Your task to perform on an android device: Open wifi settings Image 0: 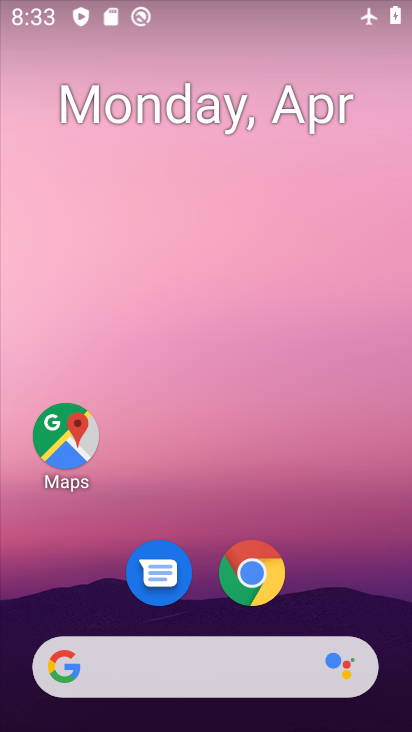
Step 0: drag from (218, 493) to (81, 4)
Your task to perform on an android device: Open wifi settings Image 1: 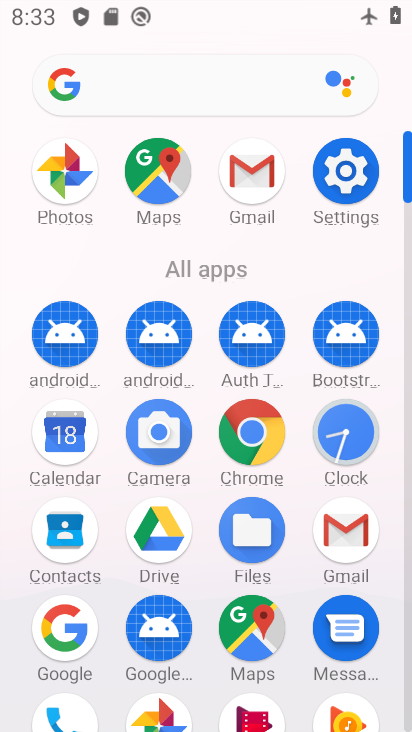
Step 1: click (340, 188)
Your task to perform on an android device: Open wifi settings Image 2: 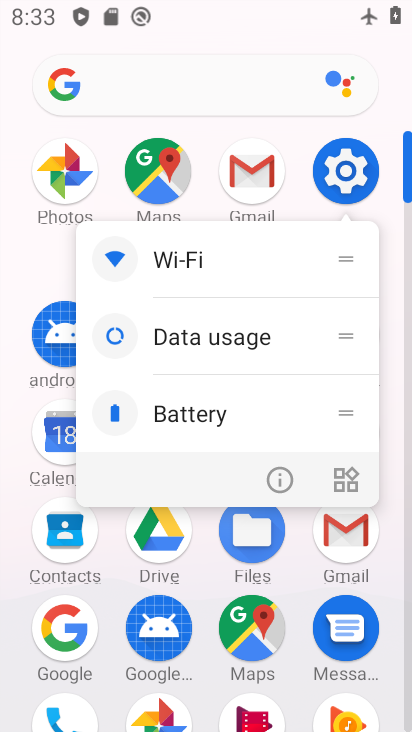
Step 2: click (357, 165)
Your task to perform on an android device: Open wifi settings Image 3: 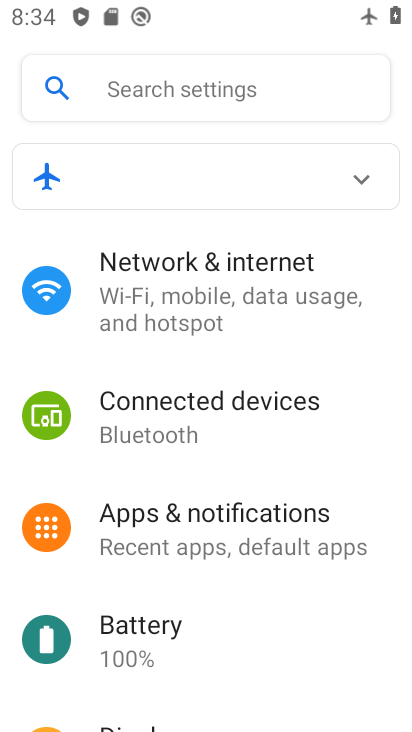
Step 3: click (188, 270)
Your task to perform on an android device: Open wifi settings Image 4: 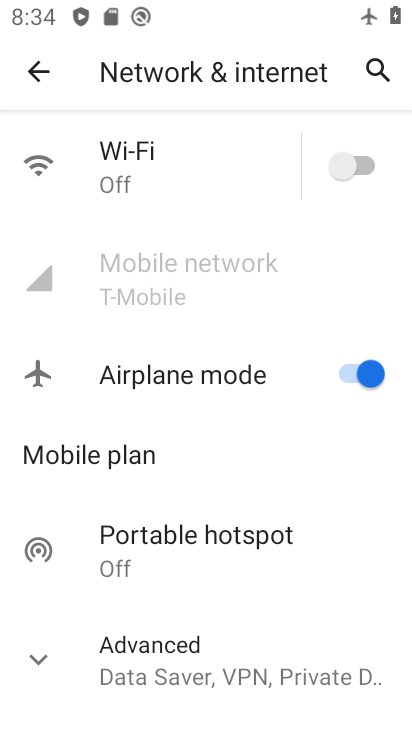
Step 4: click (122, 161)
Your task to perform on an android device: Open wifi settings Image 5: 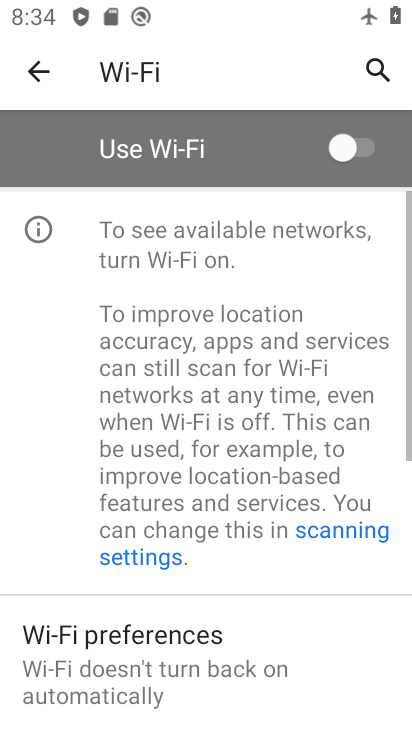
Step 5: click (112, 168)
Your task to perform on an android device: Open wifi settings Image 6: 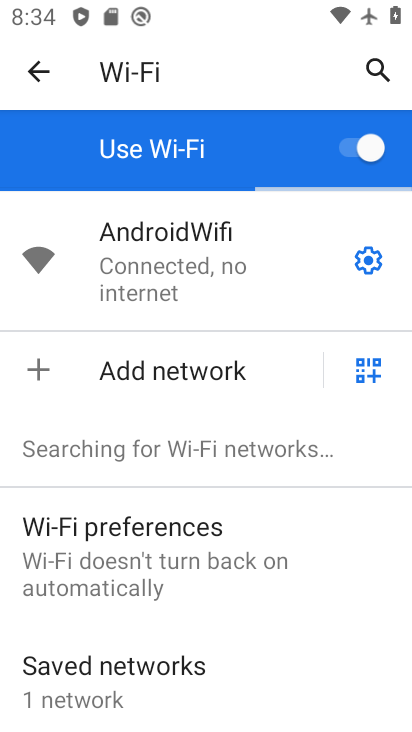
Step 6: task complete